Your task to perform on an android device: Open calendar and show me the third week of next month Image 0: 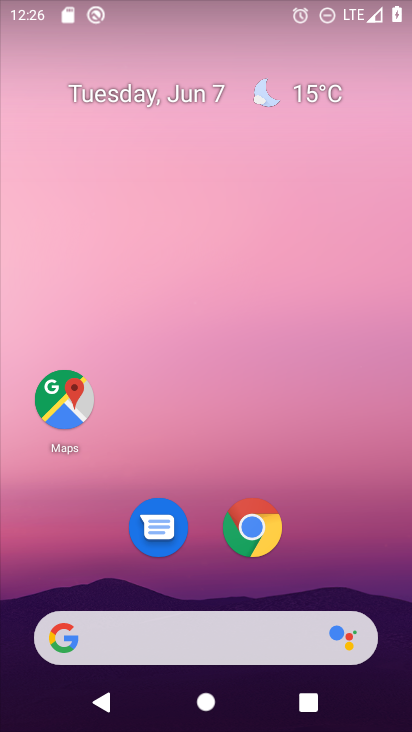
Step 0: drag from (343, 580) to (352, 53)
Your task to perform on an android device: Open calendar and show me the third week of next month Image 1: 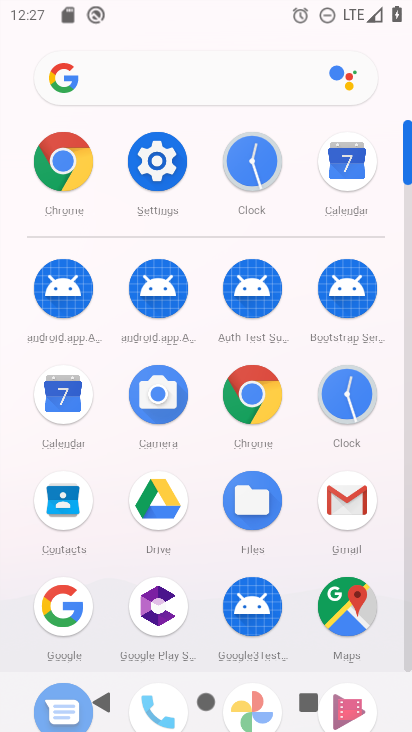
Step 1: click (52, 401)
Your task to perform on an android device: Open calendar and show me the third week of next month Image 2: 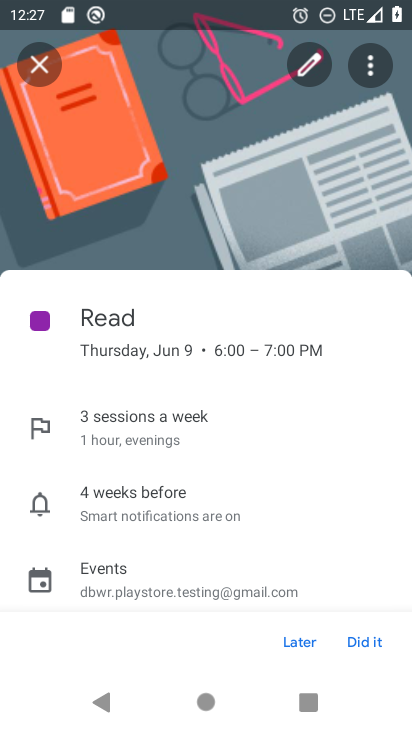
Step 2: click (39, 61)
Your task to perform on an android device: Open calendar and show me the third week of next month Image 3: 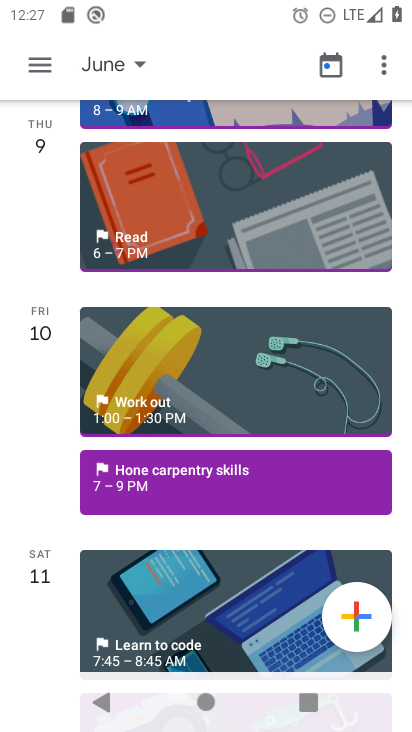
Step 3: click (148, 63)
Your task to perform on an android device: Open calendar and show me the third week of next month Image 4: 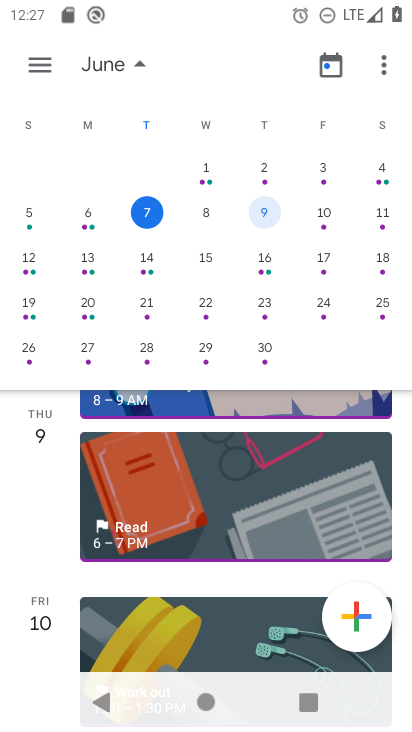
Step 4: drag from (384, 145) to (8, 158)
Your task to perform on an android device: Open calendar and show me the third week of next month Image 5: 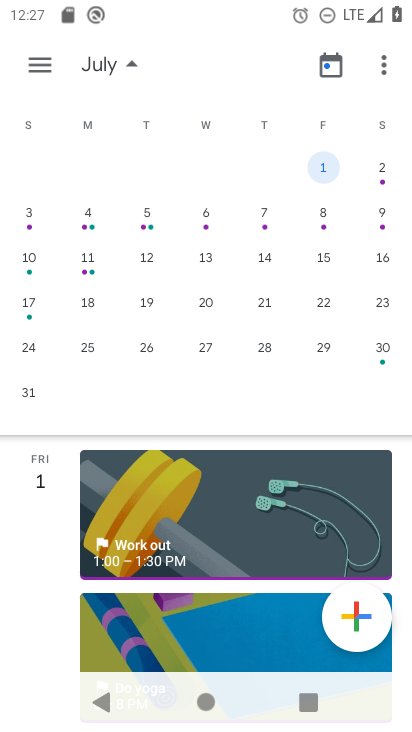
Step 5: click (88, 304)
Your task to perform on an android device: Open calendar and show me the third week of next month Image 6: 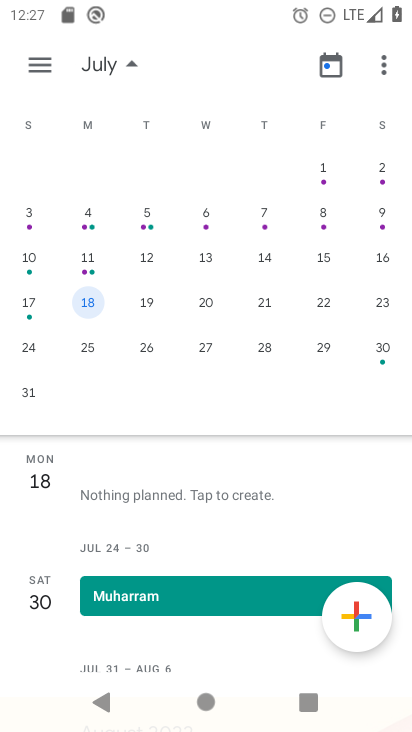
Step 6: task complete